Your task to perform on an android device: turn on javascript in the chrome app Image 0: 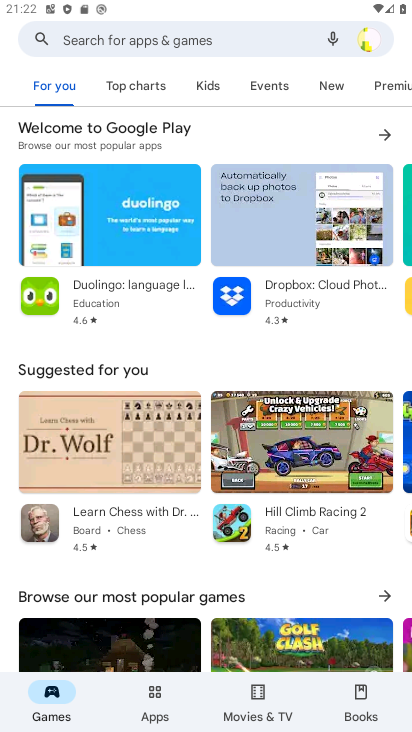
Step 0: press back button
Your task to perform on an android device: turn on javascript in the chrome app Image 1: 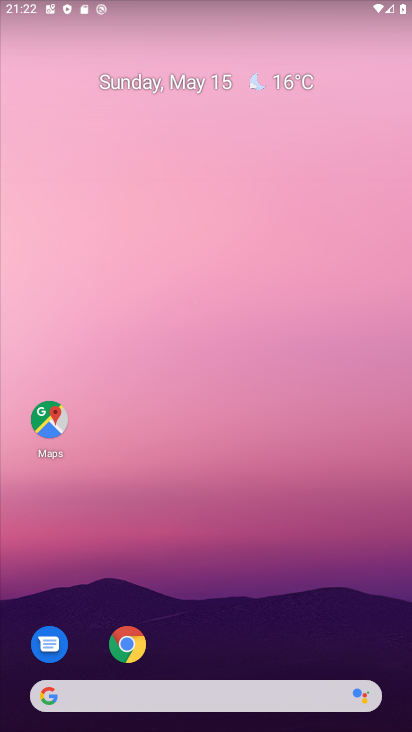
Step 1: click (133, 631)
Your task to perform on an android device: turn on javascript in the chrome app Image 2: 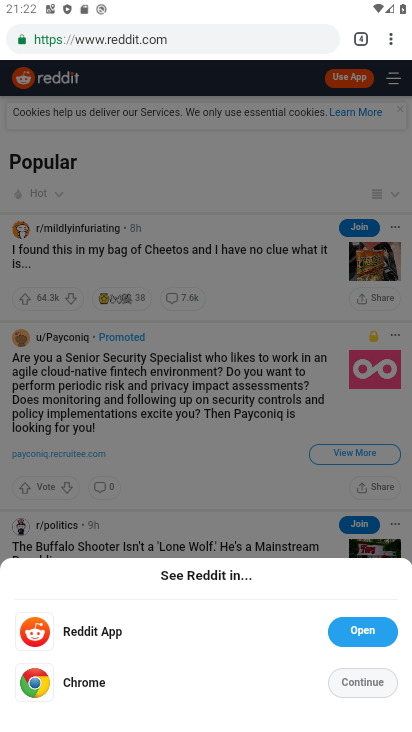
Step 2: click (395, 37)
Your task to perform on an android device: turn on javascript in the chrome app Image 3: 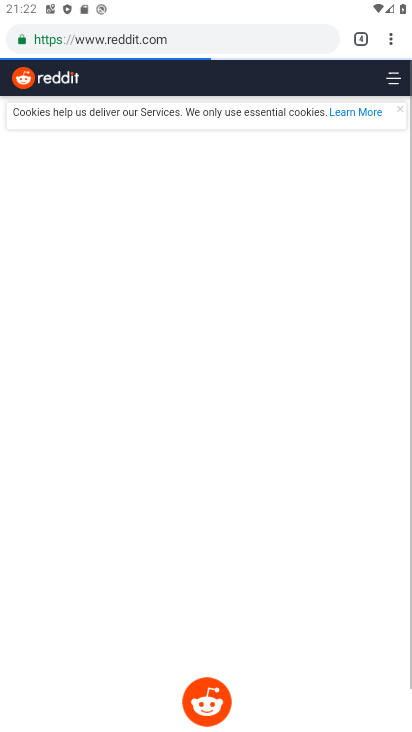
Step 3: drag from (391, 50) to (240, 430)
Your task to perform on an android device: turn on javascript in the chrome app Image 4: 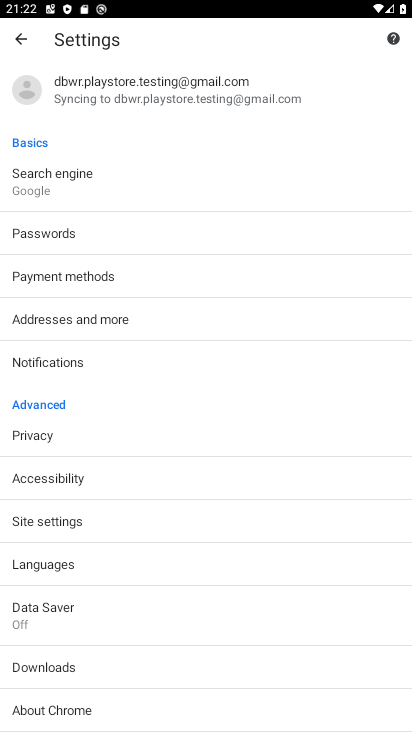
Step 4: click (58, 508)
Your task to perform on an android device: turn on javascript in the chrome app Image 5: 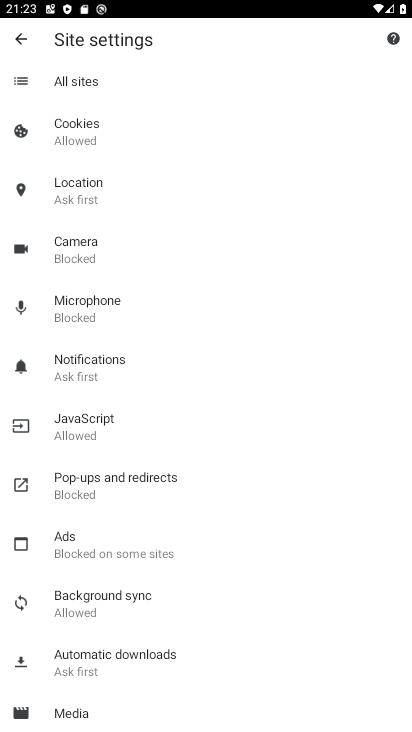
Step 5: click (92, 423)
Your task to perform on an android device: turn on javascript in the chrome app Image 6: 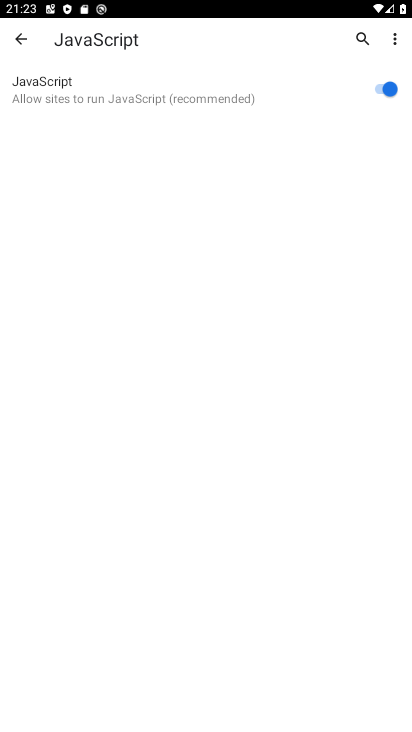
Step 6: task complete